Your task to perform on an android device: Go to sound settings Image 0: 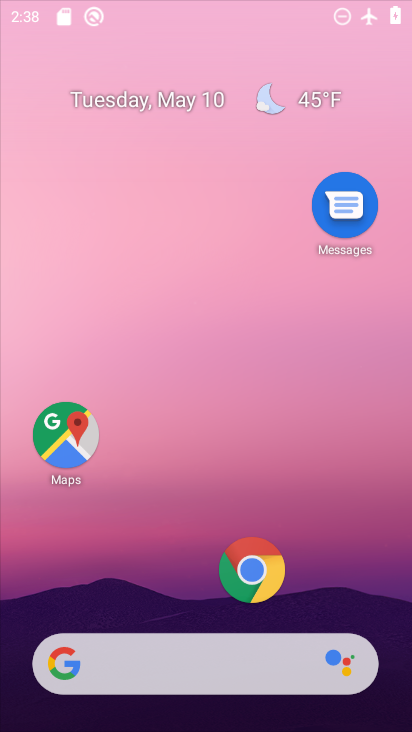
Step 0: drag from (226, 593) to (246, 155)
Your task to perform on an android device: Go to sound settings Image 1: 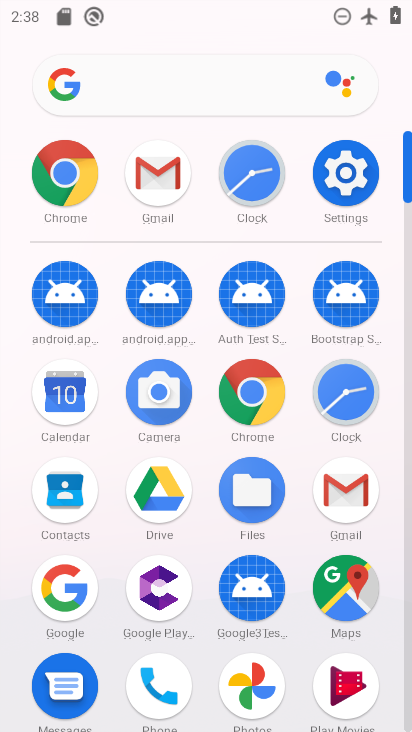
Step 1: drag from (197, 631) to (210, 170)
Your task to perform on an android device: Go to sound settings Image 2: 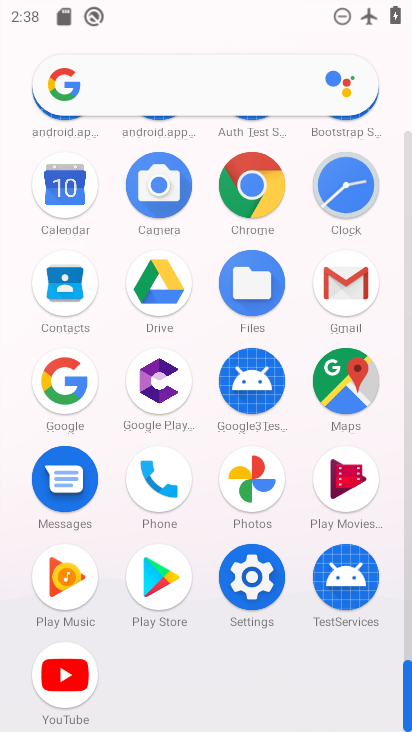
Step 2: click (241, 574)
Your task to perform on an android device: Go to sound settings Image 3: 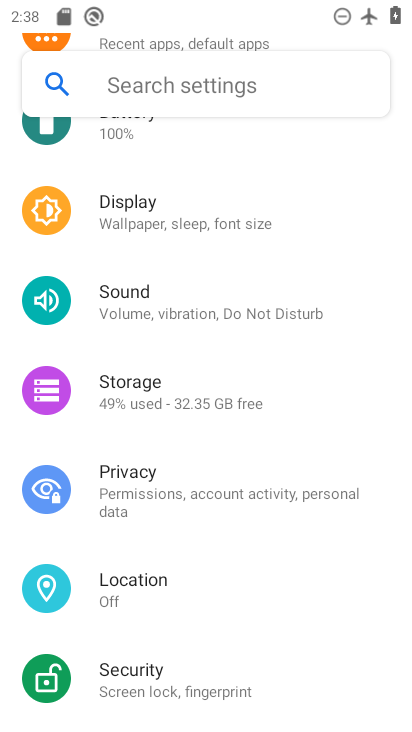
Step 3: click (209, 294)
Your task to perform on an android device: Go to sound settings Image 4: 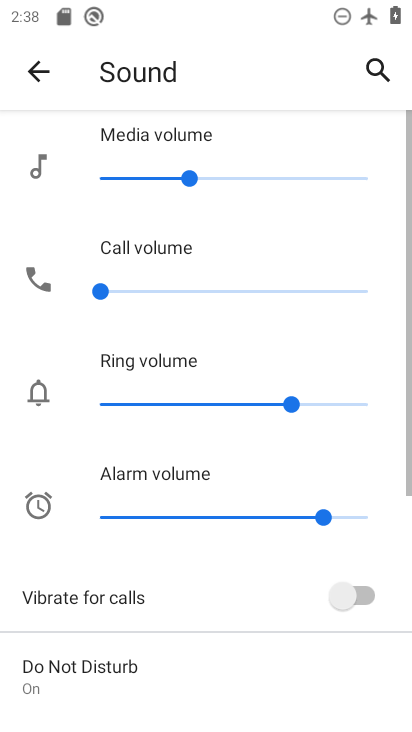
Step 4: task complete